Your task to perform on an android device: Go to internet settings Image 0: 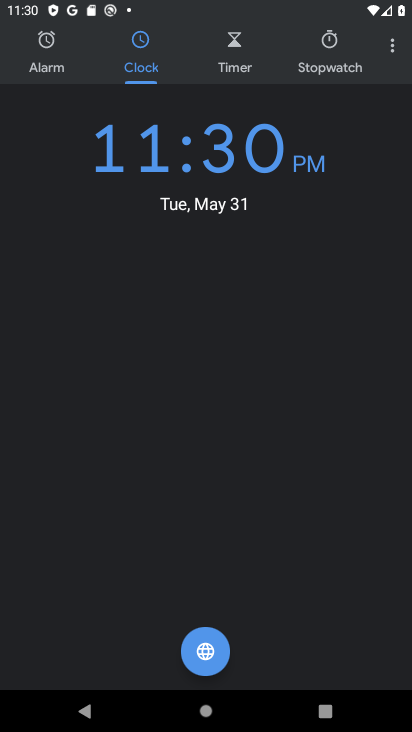
Step 0: press home button
Your task to perform on an android device: Go to internet settings Image 1: 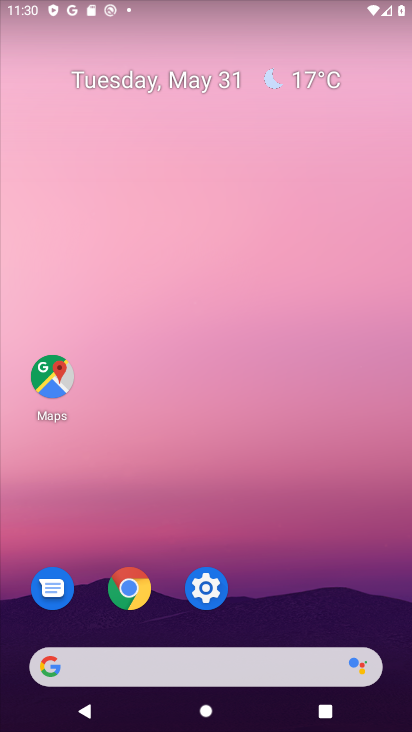
Step 1: click (225, 582)
Your task to perform on an android device: Go to internet settings Image 2: 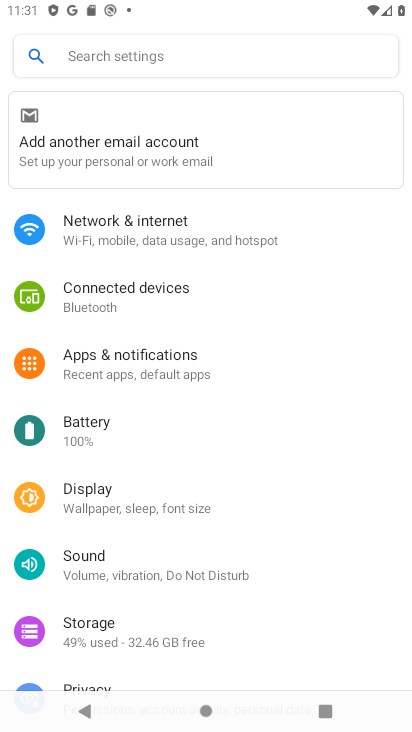
Step 2: click (133, 245)
Your task to perform on an android device: Go to internet settings Image 3: 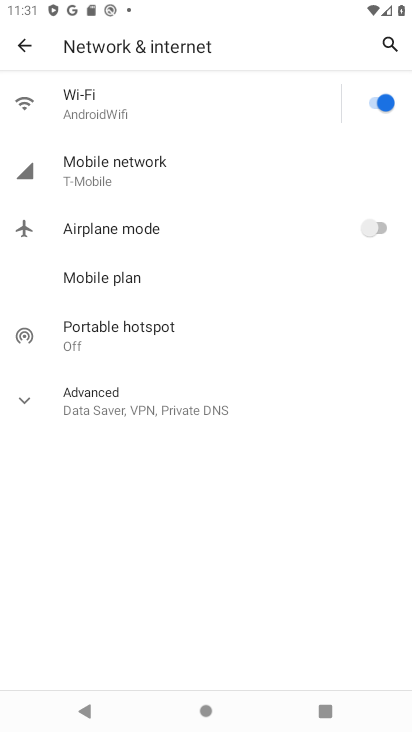
Step 3: task complete